Your task to perform on an android device: turn off location Image 0: 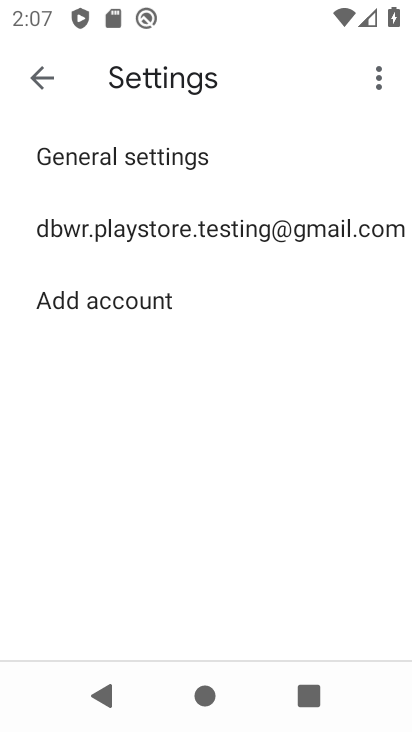
Step 0: press home button
Your task to perform on an android device: turn off location Image 1: 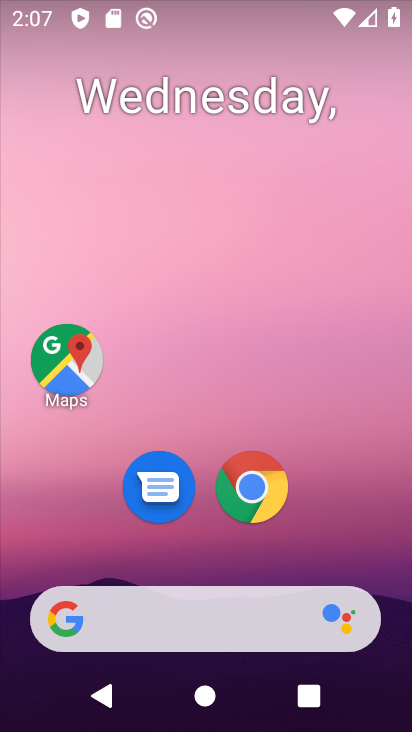
Step 1: drag from (203, 520) to (215, 42)
Your task to perform on an android device: turn off location Image 2: 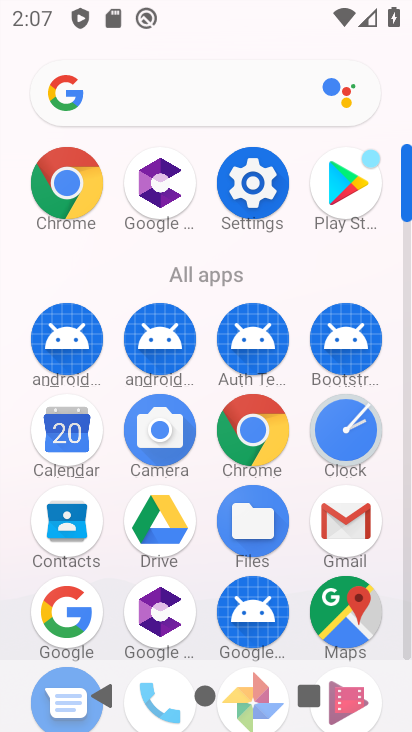
Step 2: click (248, 185)
Your task to perform on an android device: turn off location Image 3: 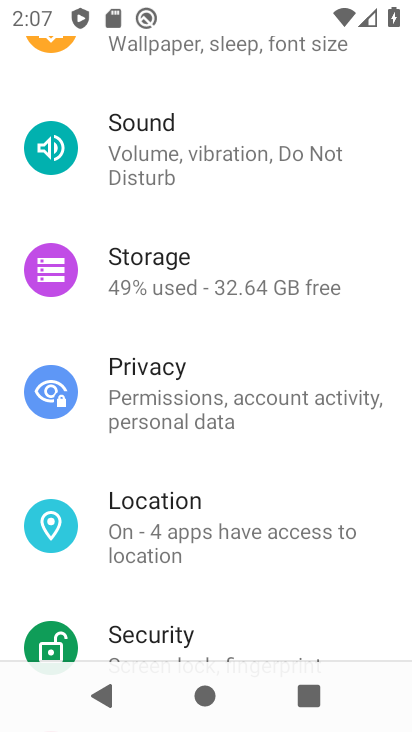
Step 3: click (209, 515)
Your task to perform on an android device: turn off location Image 4: 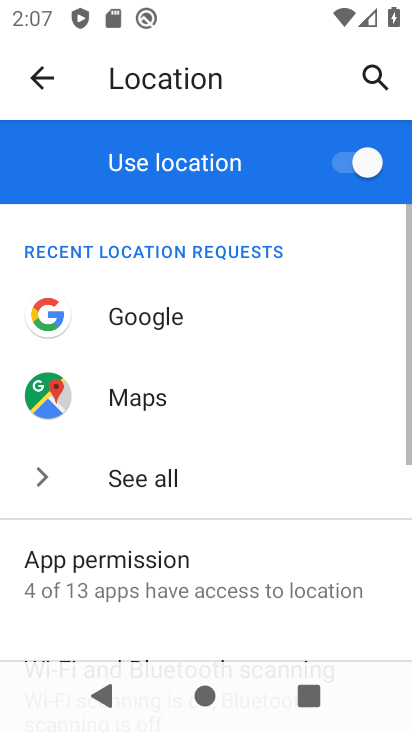
Step 4: click (342, 176)
Your task to perform on an android device: turn off location Image 5: 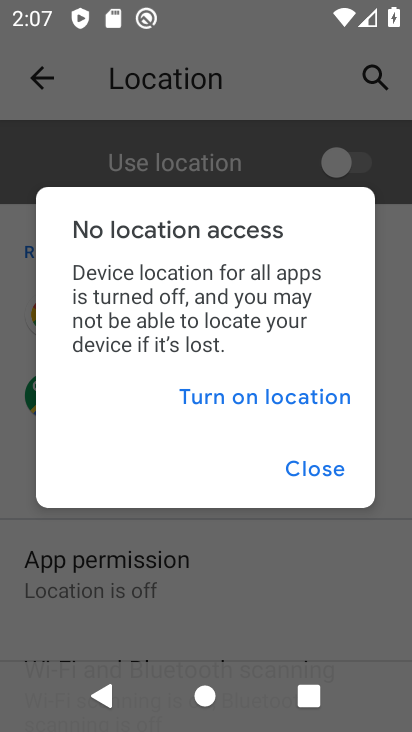
Step 5: click (323, 467)
Your task to perform on an android device: turn off location Image 6: 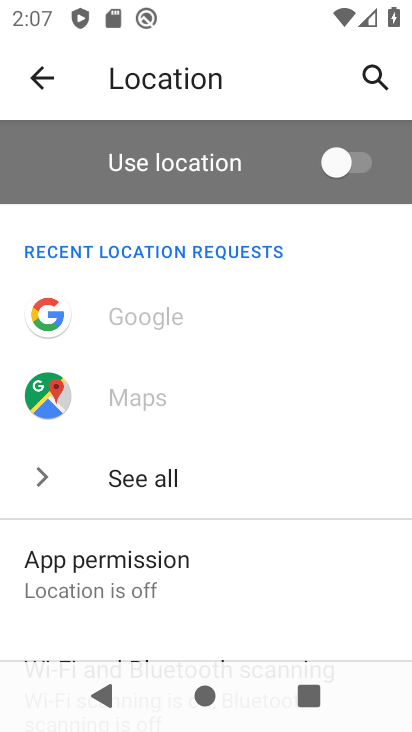
Step 6: task complete